Your task to perform on an android device: Open Google Maps and go to "Timeline" Image 0: 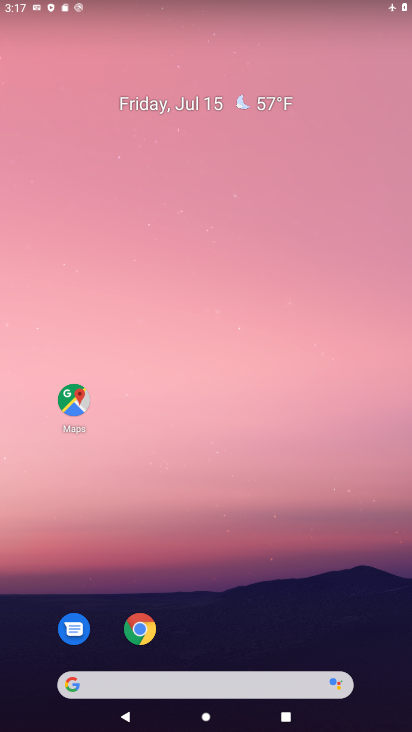
Step 0: drag from (270, 699) to (208, 178)
Your task to perform on an android device: Open Google Maps and go to "Timeline" Image 1: 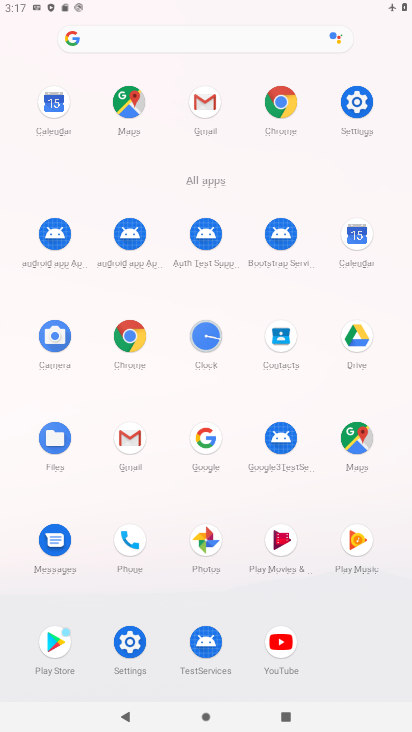
Step 1: click (365, 447)
Your task to perform on an android device: Open Google Maps and go to "Timeline" Image 2: 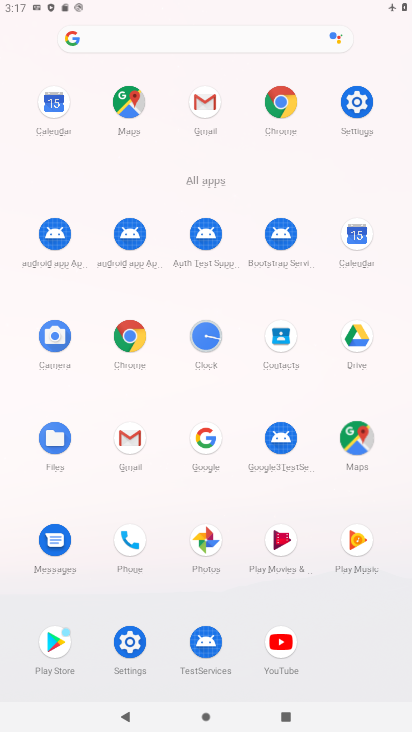
Step 2: click (362, 444)
Your task to perform on an android device: Open Google Maps and go to "Timeline" Image 3: 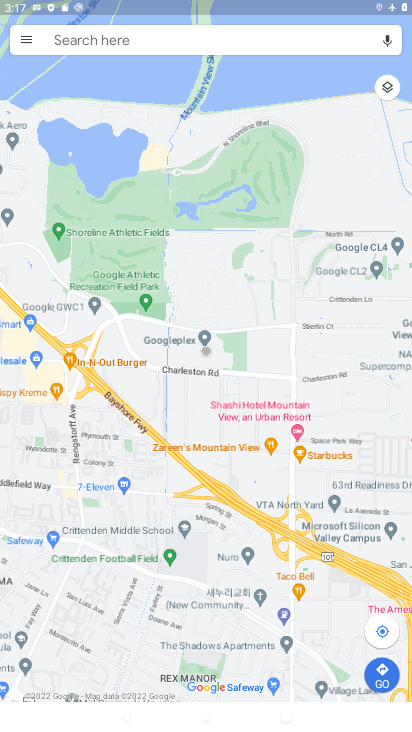
Step 3: click (24, 39)
Your task to perform on an android device: Open Google Maps and go to "Timeline" Image 4: 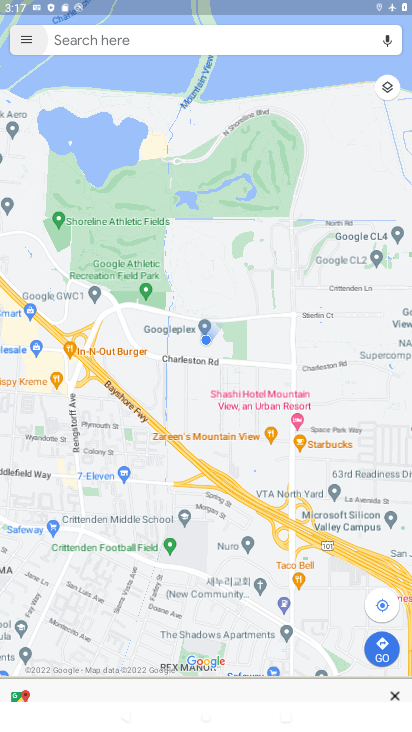
Step 4: drag from (24, 39) to (60, 155)
Your task to perform on an android device: Open Google Maps and go to "Timeline" Image 5: 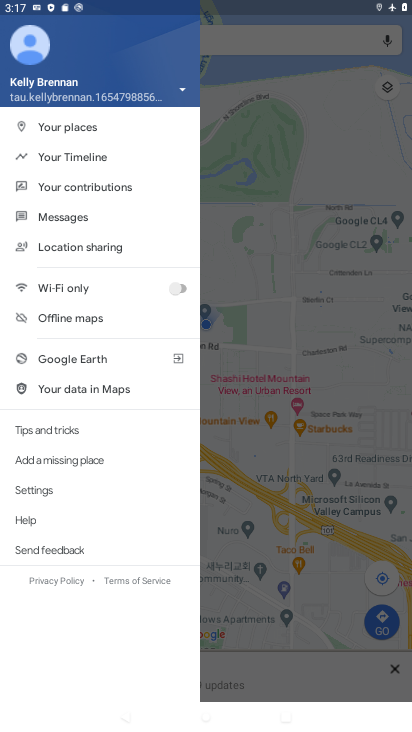
Step 5: click (78, 142)
Your task to perform on an android device: Open Google Maps and go to "Timeline" Image 6: 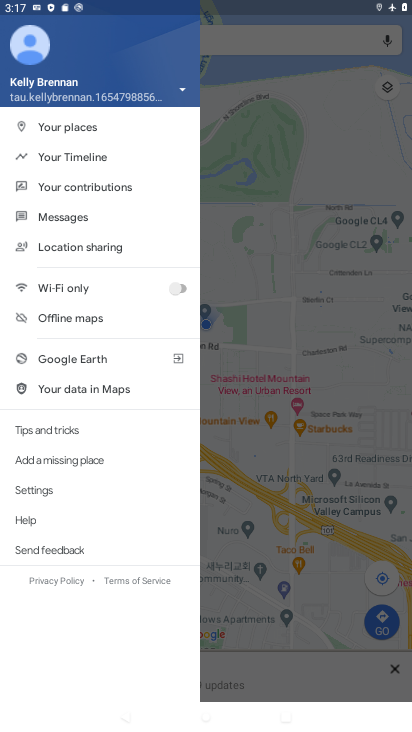
Step 6: click (78, 154)
Your task to perform on an android device: Open Google Maps and go to "Timeline" Image 7: 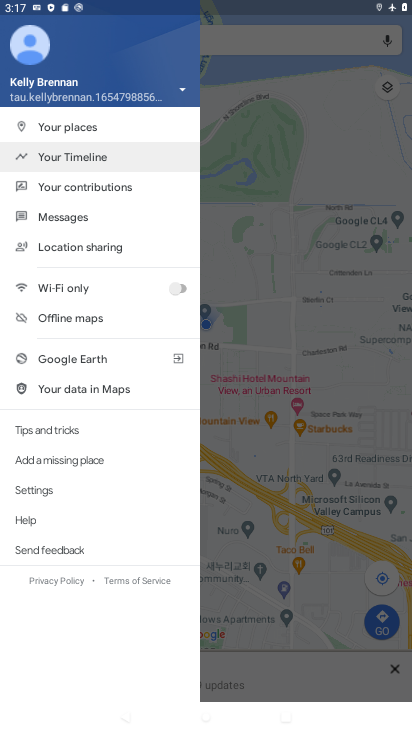
Step 7: click (72, 157)
Your task to perform on an android device: Open Google Maps and go to "Timeline" Image 8: 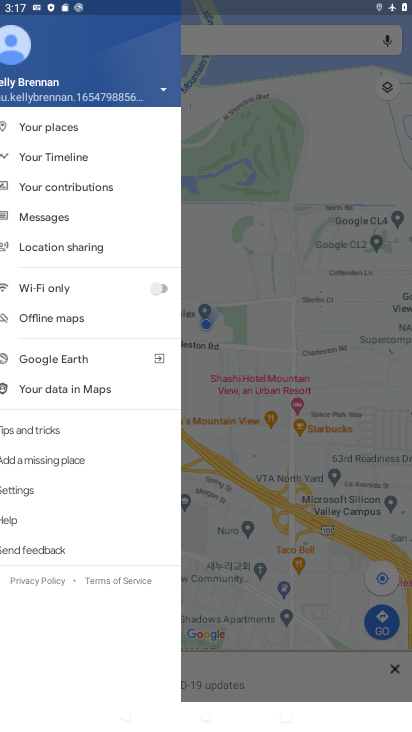
Step 8: click (74, 159)
Your task to perform on an android device: Open Google Maps and go to "Timeline" Image 9: 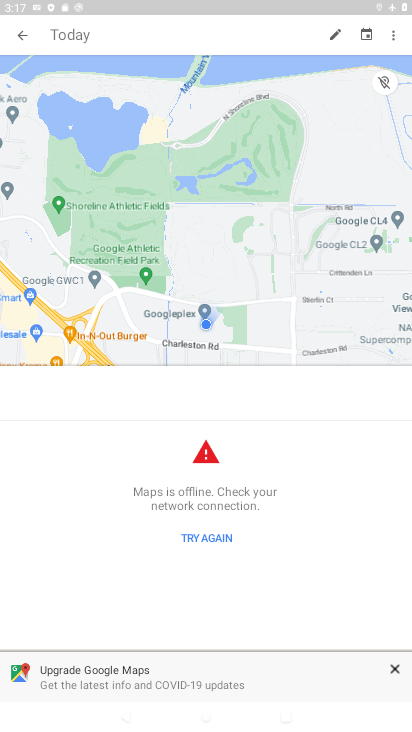
Step 9: task complete